Your task to perform on an android device: Open Google Chrome and open the bookmarks view Image 0: 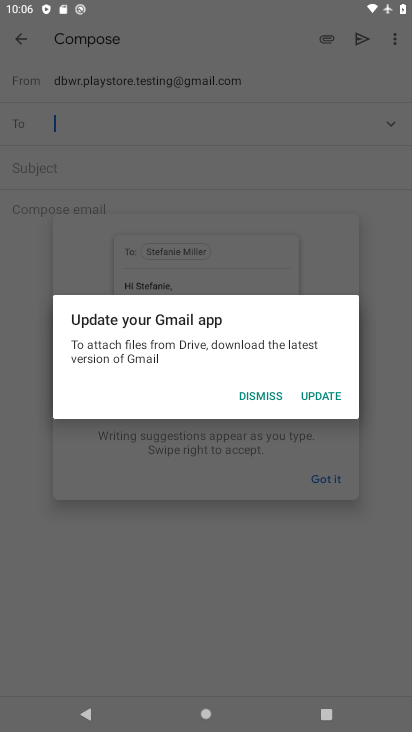
Step 0: press home button
Your task to perform on an android device: Open Google Chrome and open the bookmarks view Image 1: 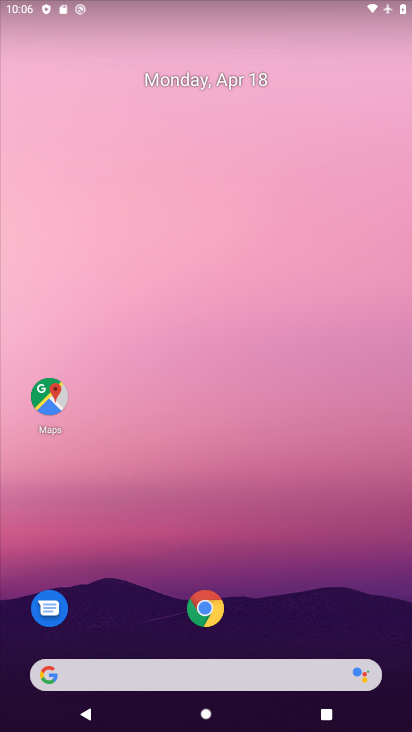
Step 1: click (215, 612)
Your task to perform on an android device: Open Google Chrome and open the bookmarks view Image 2: 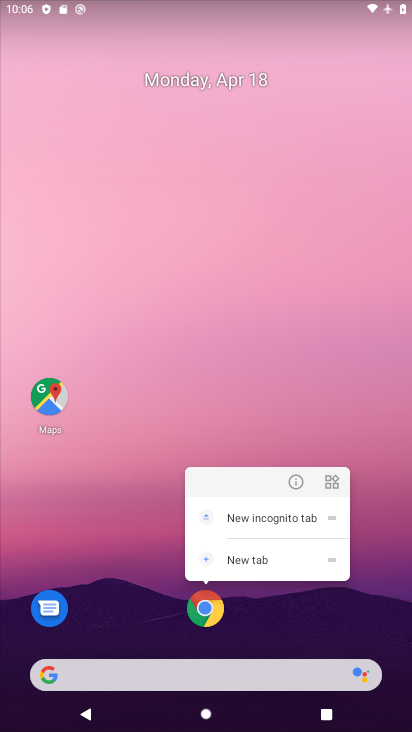
Step 2: click (215, 612)
Your task to perform on an android device: Open Google Chrome and open the bookmarks view Image 3: 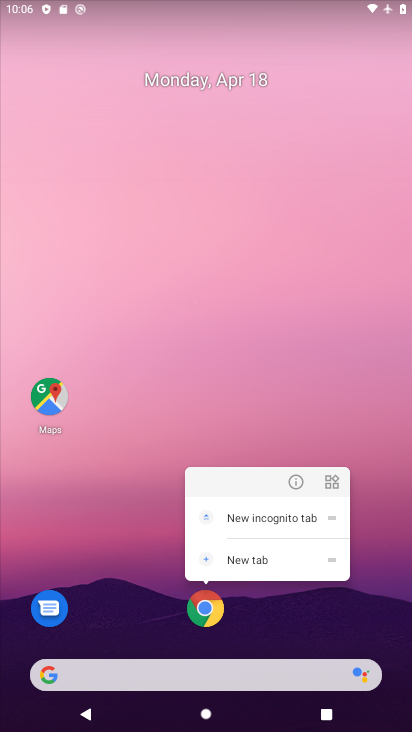
Step 3: click (200, 609)
Your task to perform on an android device: Open Google Chrome and open the bookmarks view Image 4: 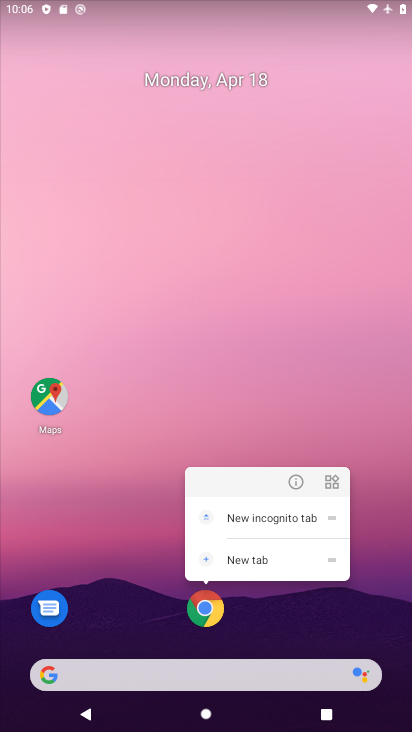
Step 4: click (200, 609)
Your task to perform on an android device: Open Google Chrome and open the bookmarks view Image 5: 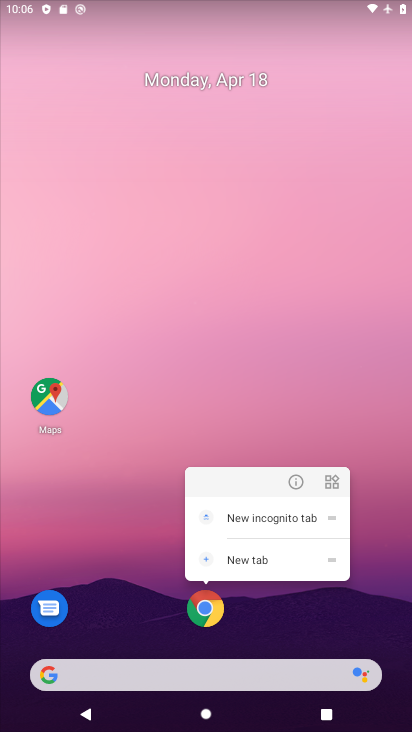
Step 5: click (200, 609)
Your task to perform on an android device: Open Google Chrome and open the bookmarks view Image 6: 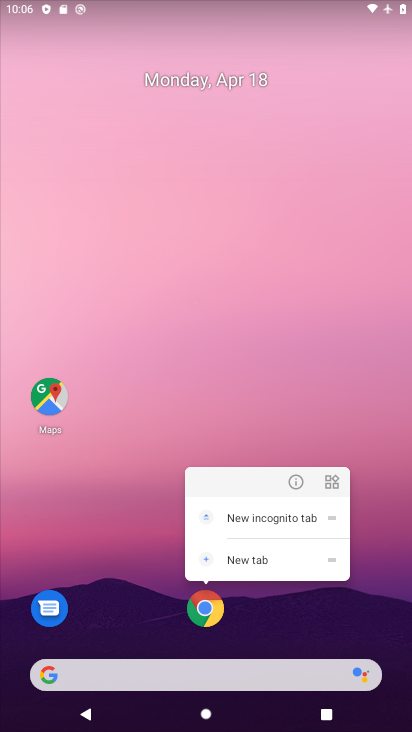
Step 6: click (200, 609)
Your task to perform on an android device: Open Google Chrome and open the bookmarks view Image 7: 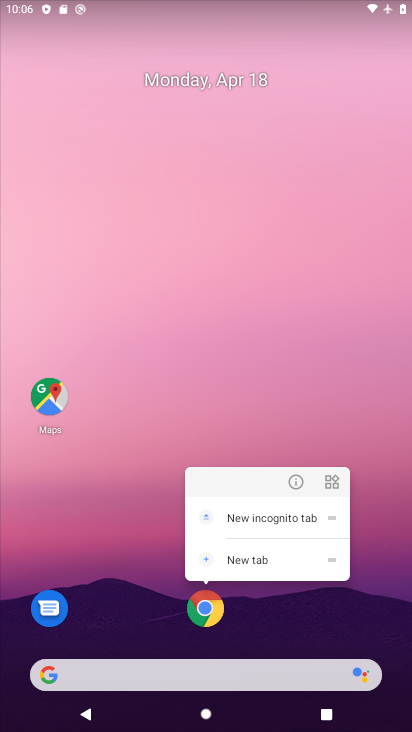
Step 7: click (201, 610)
Your task to perform on an android device: Open Google Chrome and open the bookmarks view Image 8: 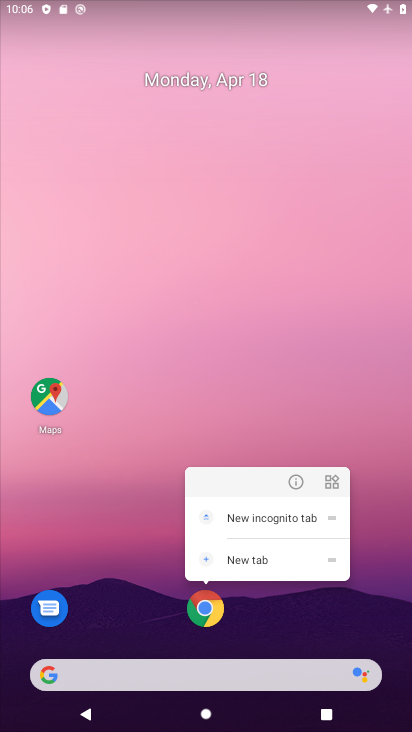
Step 8: click (216, 615)
Your task to perform on an android device: Open Google Chrome and open the bookmarks view Image 9: 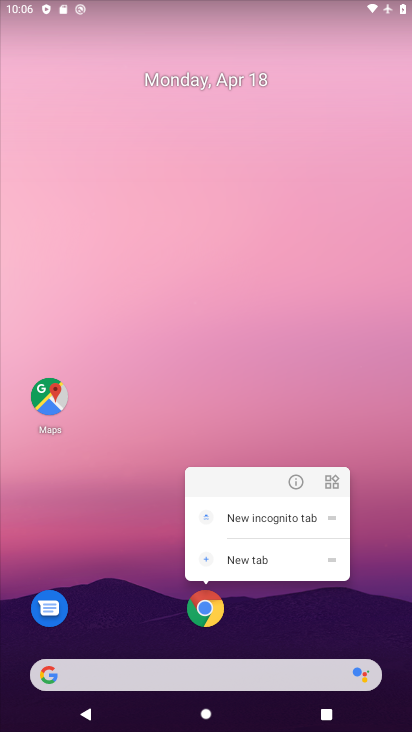
Step 9: click (216, 615)
Your task to perform on an android device: Open Google Chrome and open the bookmarks view Image 10: 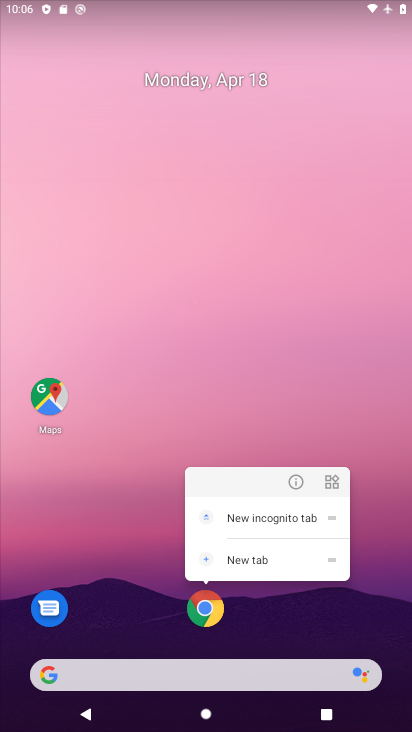
Step 10: click (216, 615)
Your task to perform on an android device: Open Google Chrome and open the bookmarks view Image 11: 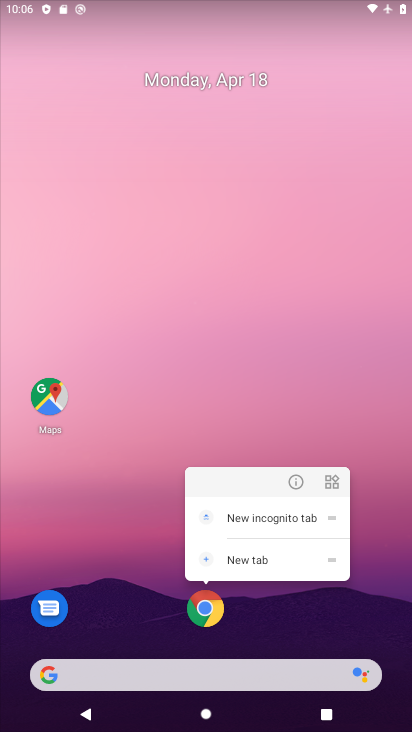
Step 11: click (208, 617)
Your task to perform on an android device: Open Google Chrome and open the bookmarks view Image 12: 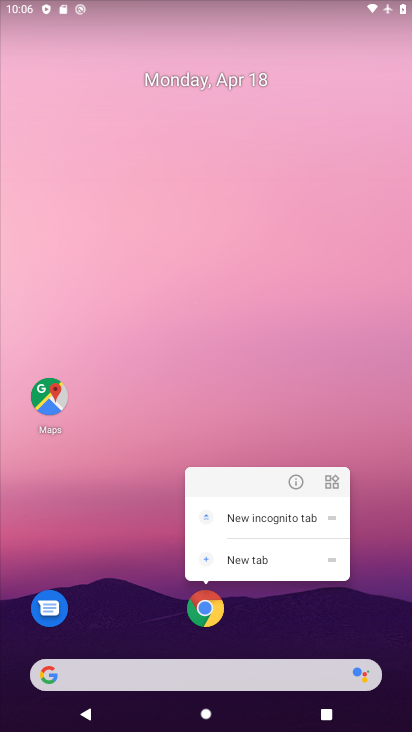
Step 12: click (208, 617)
Your task to perform on an android device: Open Google Chrome and open the bookmarks view Image 13: 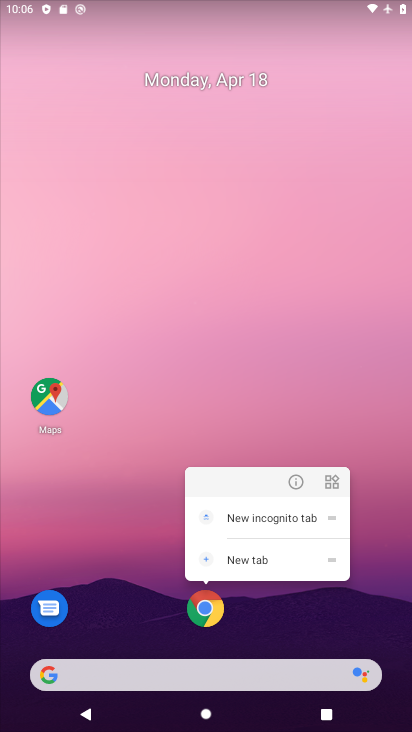
Step 13: click (211, 608)
Your task to perform on an android device: Open Google Chrome and open the bookmarks view Image 14: 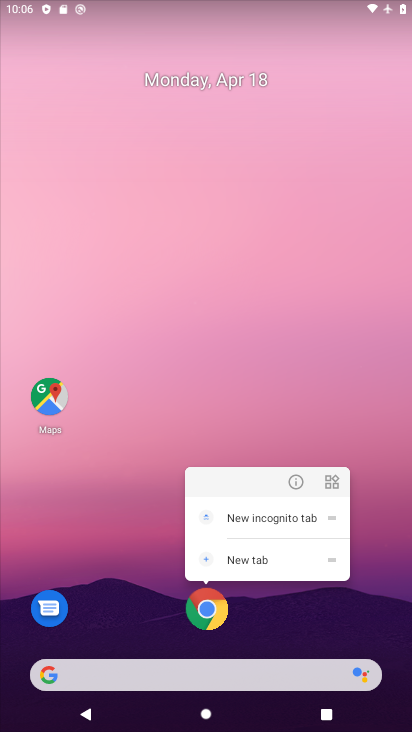
Step 14: click (211, 608)
Your task to perform on an android device: Open Google Chrome and open the bookmarks view Image 15: 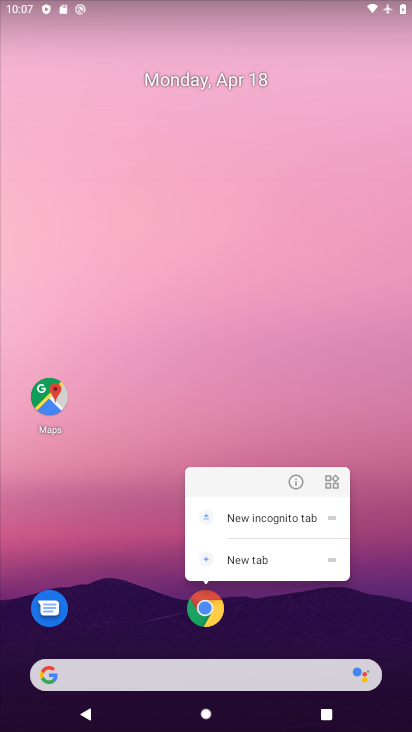
Step 15: click (211, 608)
Your task to perform on an android device: Open Google Chrome and open the bookmarks view Image 16: 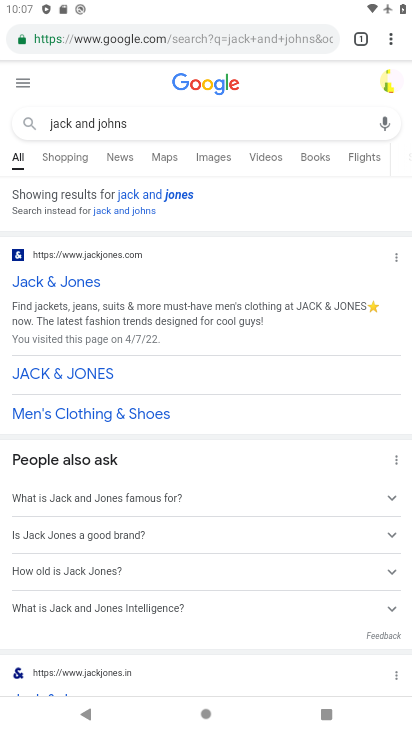
Step 16: task complete